Your task to perform on an android device: Open Reddit.com Image 0: 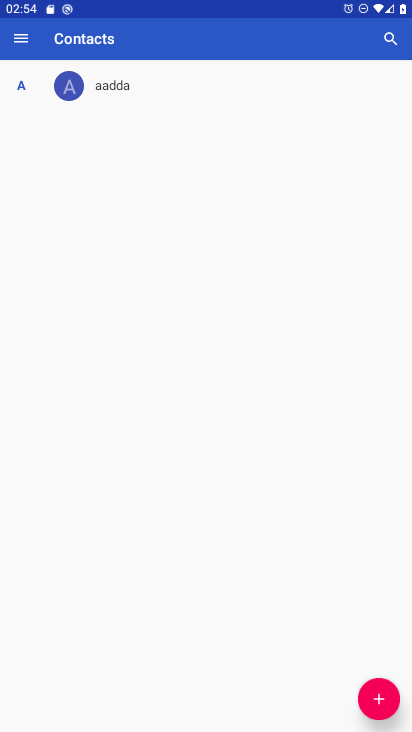
Step 0: press home button
Your task to perform on an android device: Open Reddit.com Image 1: 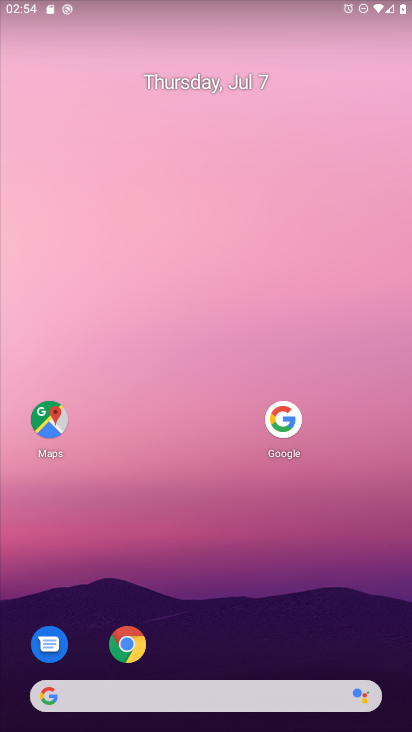
Step 1: click (124, 651)
Your task to perform on an android device: Open Reddit.com Image 2: 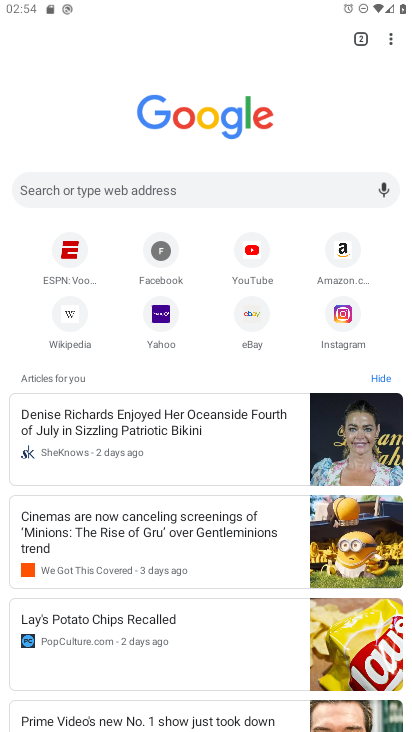
Step 2: click (131, 183)
Your task to perform on an android device: Open Reddit.com Image 3: 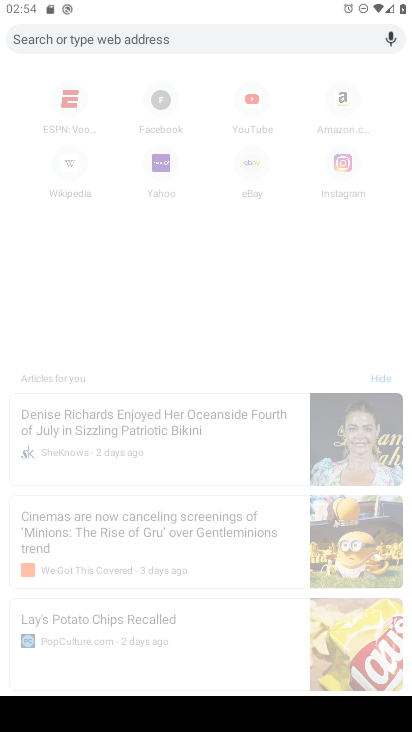
Step 3: type "reddit.com"
Your task to perform on an android device: Open Reddit.com Image 4: 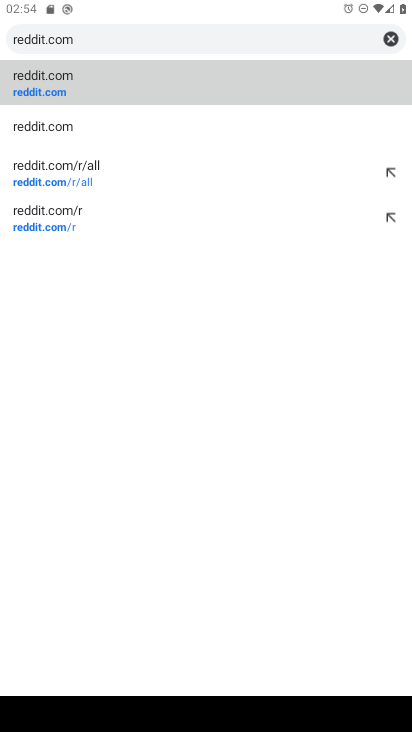
Step 4: click (44, 82)
Your task to perform on an android device: Open Reddit.com Image 5: 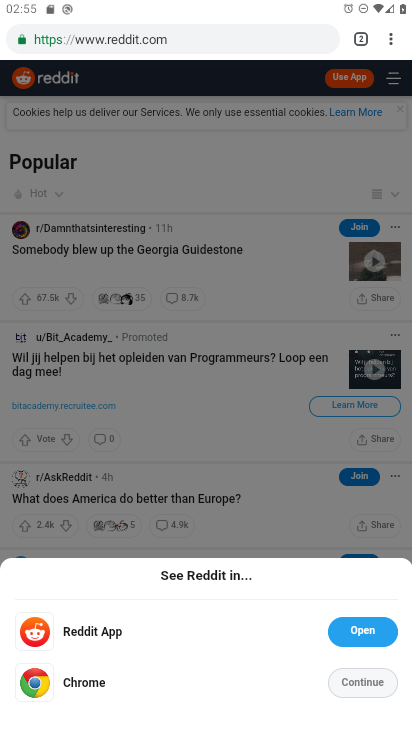
Step 5: task complete